Your task to perform on an android device: check storage Image 0: 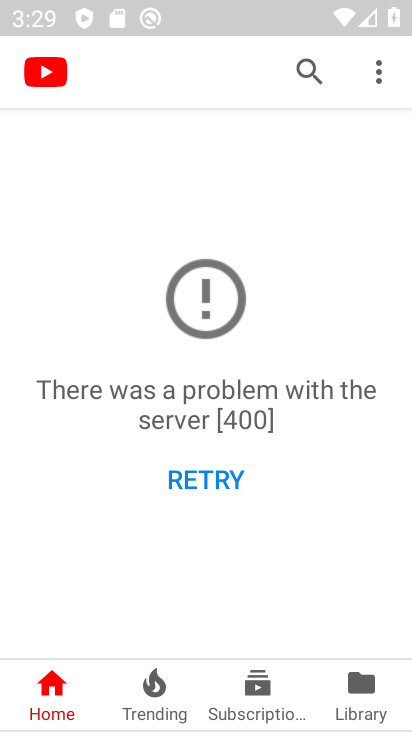
Step 0: press home button
Your task to perform on an android device: check storage Image 1: 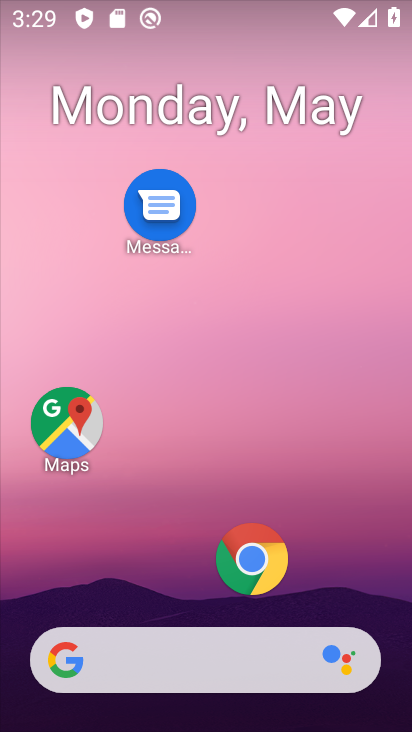
Step 1: drag from (151, 596) to (133, 172)
Your task to perform on an android device: check storage Image 2: 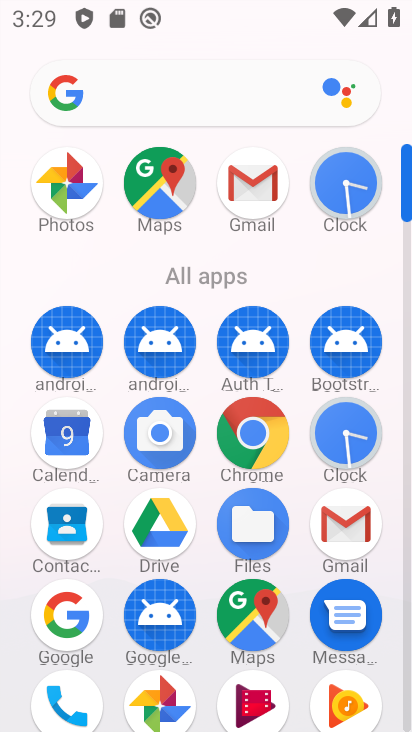
Step 2: drag from (205, 533) to (201, 144)
Your task to perform on an android device: check storage Image 3: 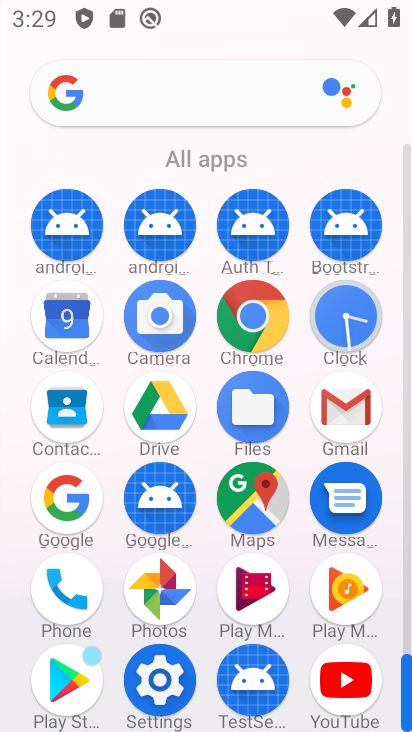
Step 3: click (155, 683)
Your task to perform on an android device: check storage Image 4: 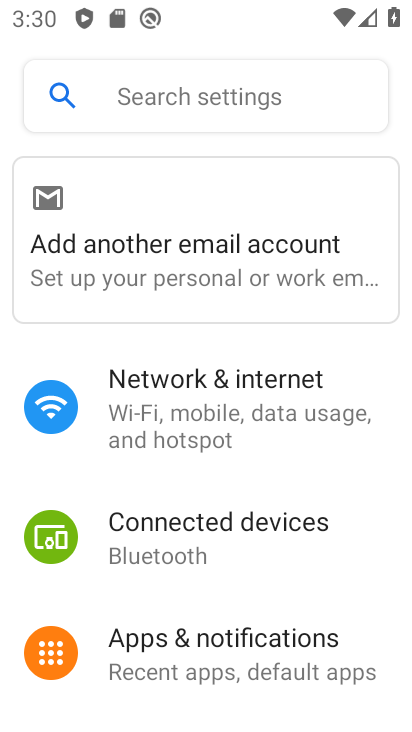
Step 4: drag from (200, 695) to (202, 200)
Your task to perform on an android device: check storage Image 5: 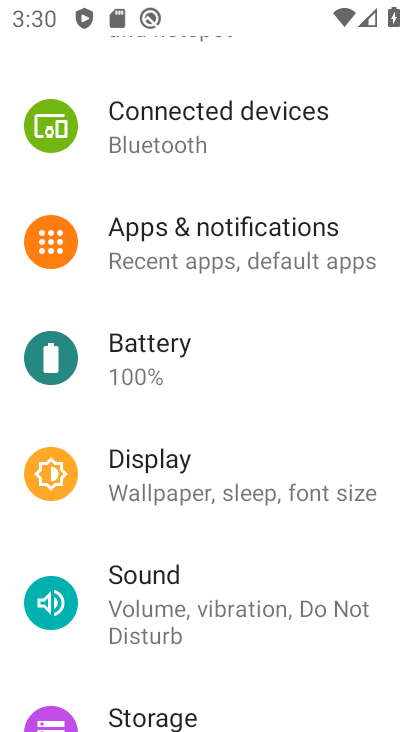
Step 5: drag from (241, 657) to (305, 269)
Your task to perform on an android device: check storage Image 6: 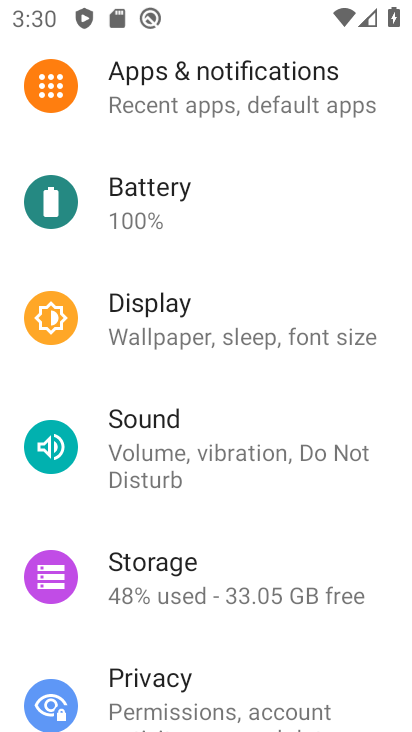
Step 6: click (184, 584)
Your task to perform on an android device: check storage Image 7: 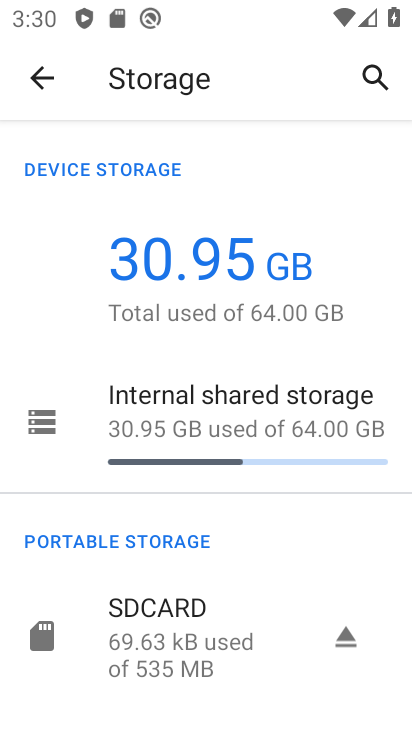
Step 7: task complete